Your task to perform on an android device: Open my contact list Image 0: 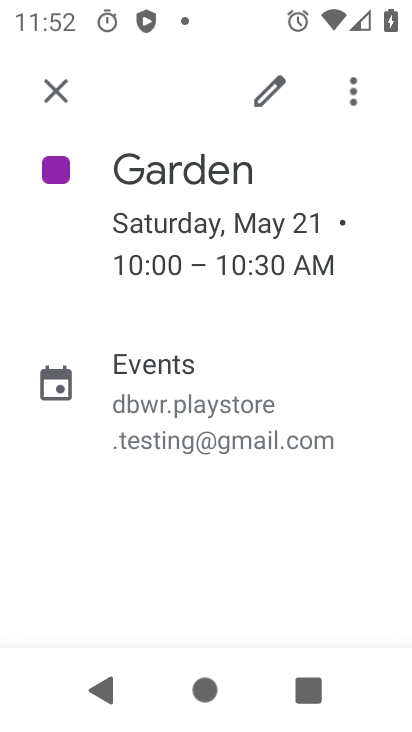
Step 0: press home button
Your task to perform on an android device: Open my contact list Image 1: 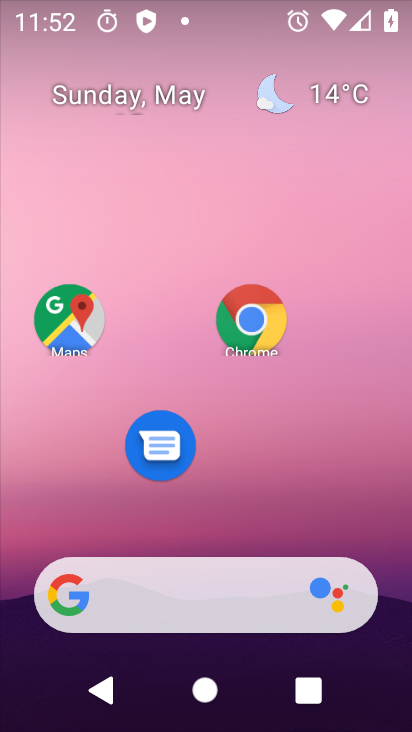
Step 1: drag from (132, 622) to (291, 140)
Your task to perform on an android device: Open my contact list Image 2: 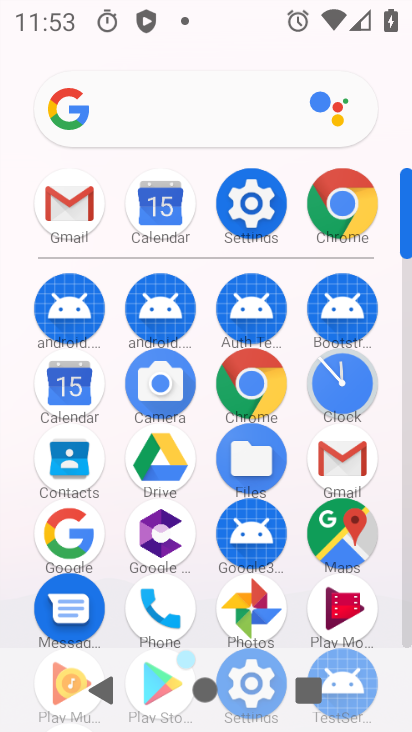
Step 2: click (67, 466)
Your task to perform on an android device: Open my contact list Image 3: 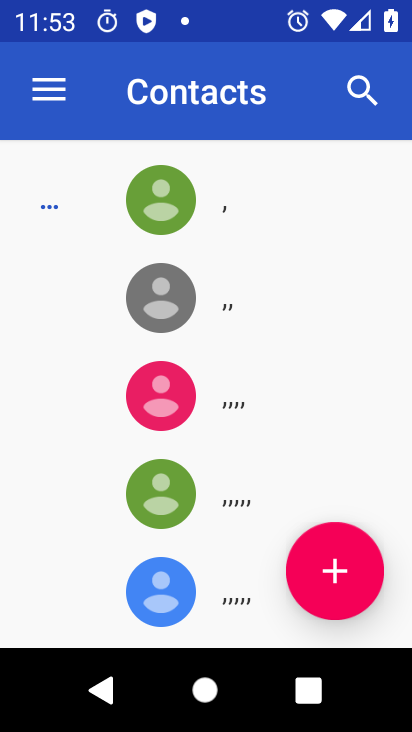
Step 3: task complete